Your task to perform on an android device: turn on wifi Image 0: 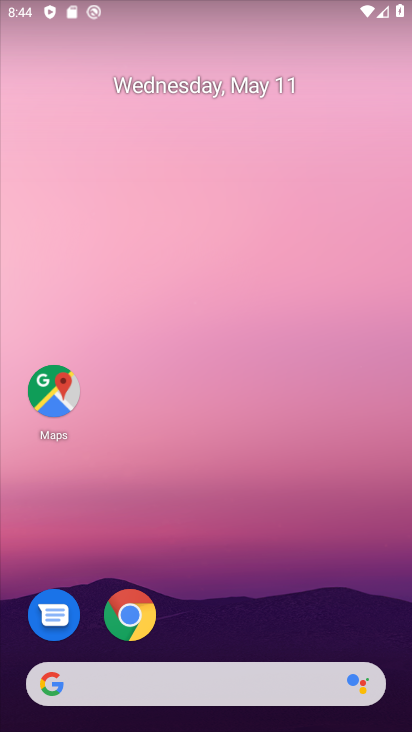
Step 0: press home button
Your task to perform on an android device: turn on wifi Image 1: 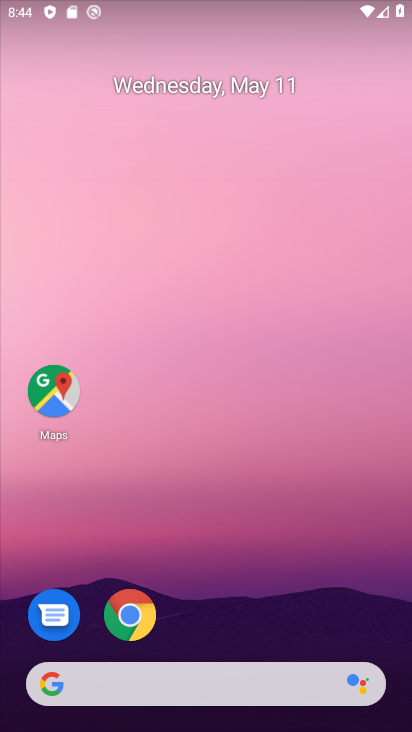
Step 1: drag from (127, 4) to (120, 373)
Your task to perform on an android device: turn on wifi Image 2: 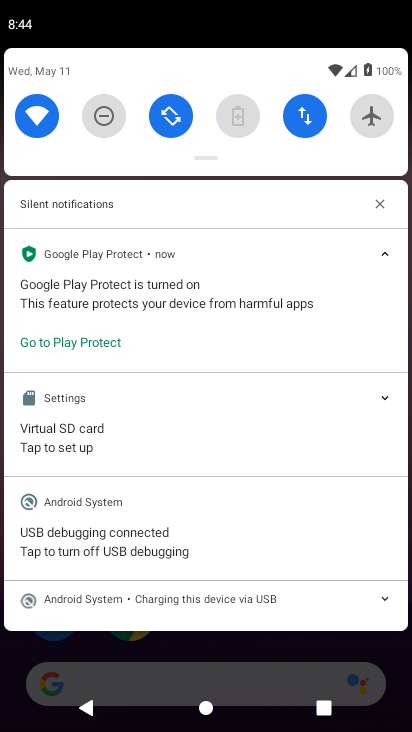
Step 2: click (27, 118)
Your task to perform on an android device: turn on wifi Image 3: 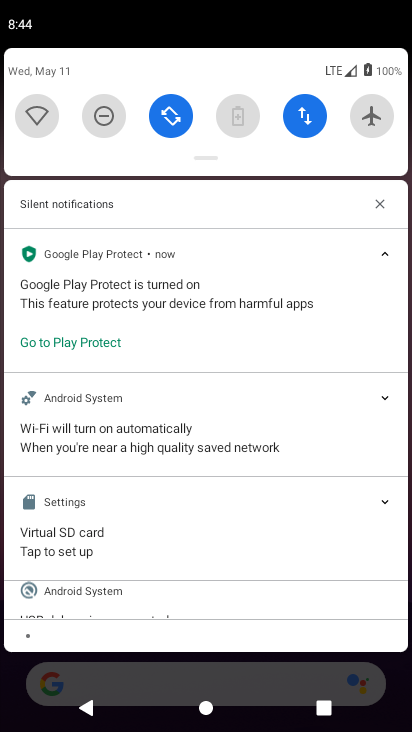
Step 3: click (32, 115)
Your task to perform on an android device: turn on wifi Image 4: 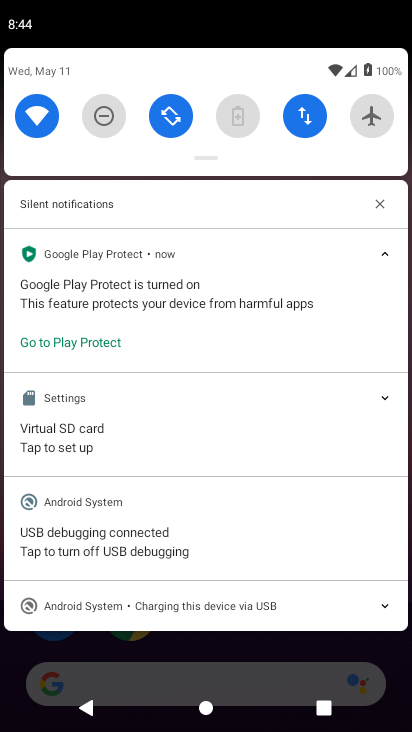
Step 4: task complete